Your task to perform on an android device: Open Youtube and go to "Your channel" Image 0: 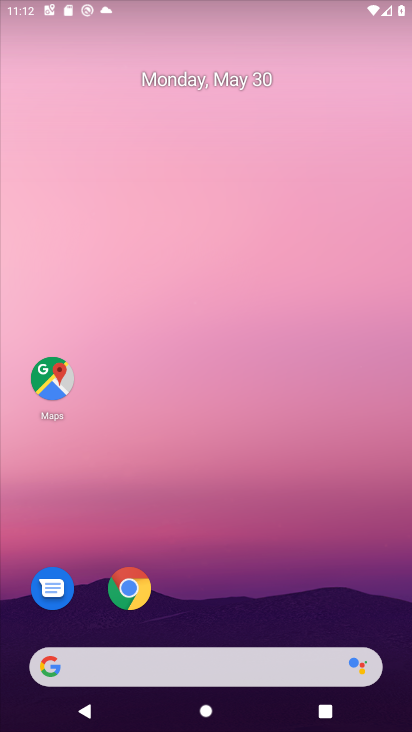
Step 0: click (277, 18)
Your task to perform on an android device: Open Youtube and go to "Your channel" Image 1: 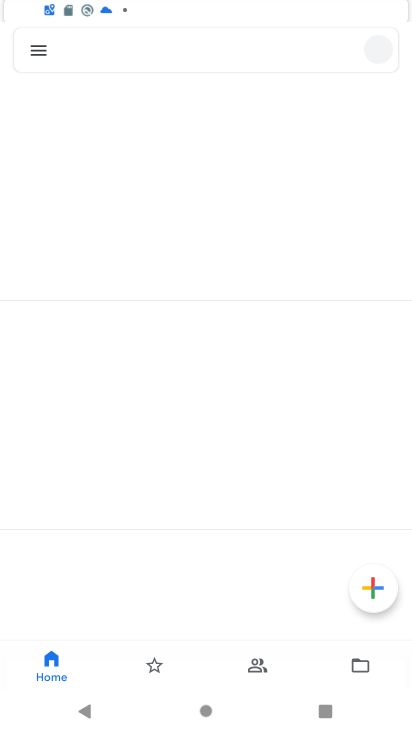
Step 1: drag from (238, 667) to (323, 444)
Your task to perform on an android device: Open Youtube and go to "Your channel" Image 2: 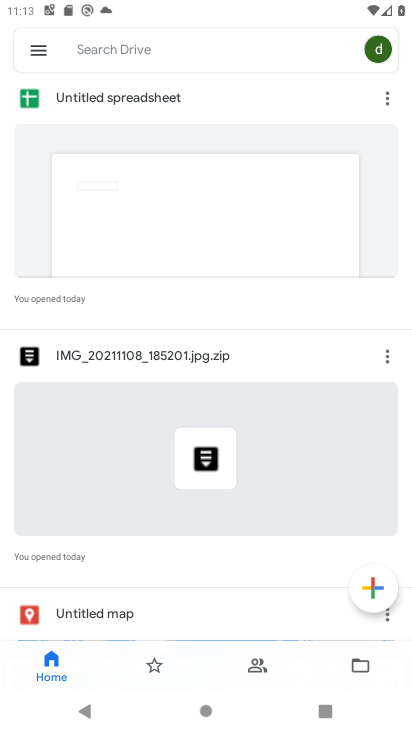
Step 2: press home button
Your task to perform on an android device: Open Youtube and go to "Your channel" Image 3: 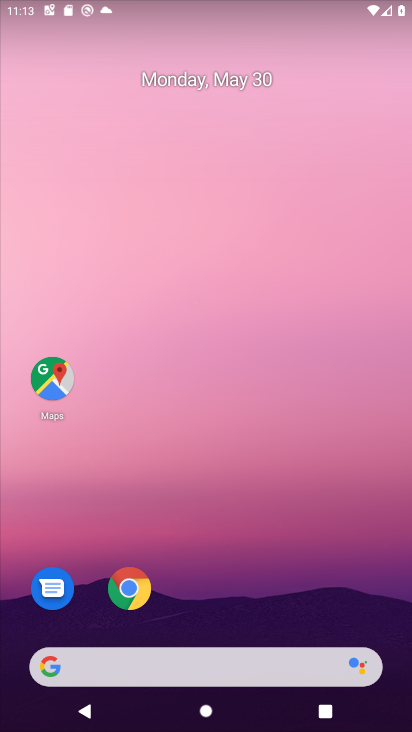
Step 3: drag from (372, 693) to (325, 210)
Your task to perform on an android device: Open Youtube and go to "Your channel" Image 4: 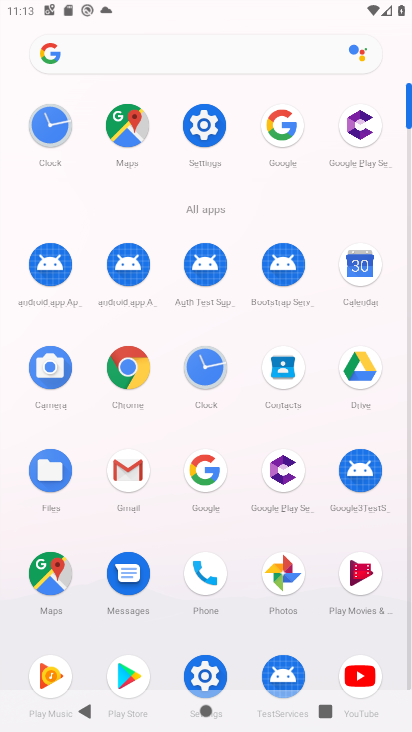
Step 4: click (358, 692)
Your task to perform on an android device: Open Youtube and go to "Your channel" Image 5: 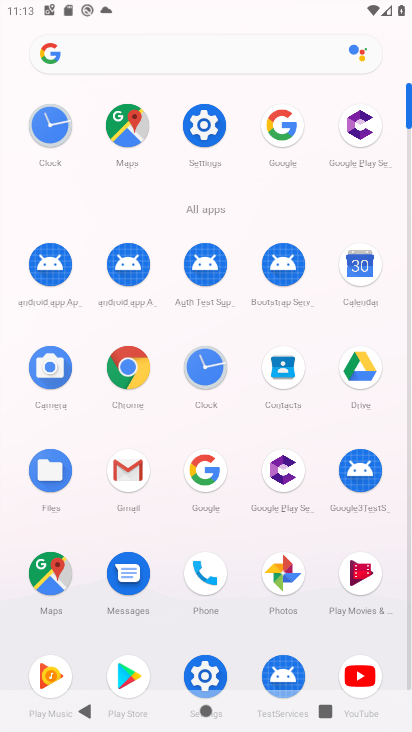
Step 5: click (357, 682)
Your task to perform on an android device: Open Youtube and go to "Your channel" Image 6: 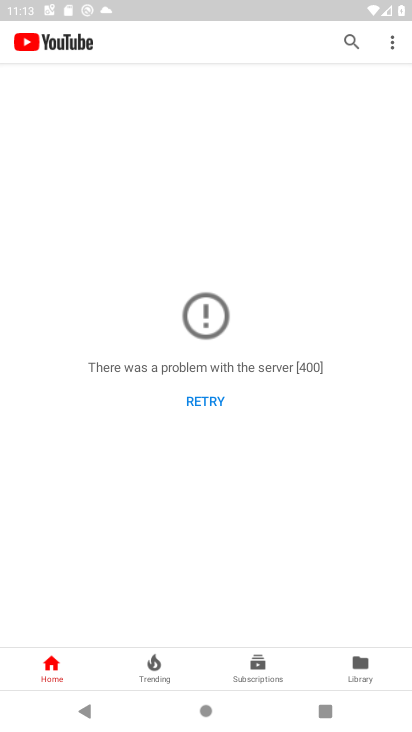
Step 6: task complete